Your task to perform on an android device: toggle priority inbox in the gmail app Image 0: 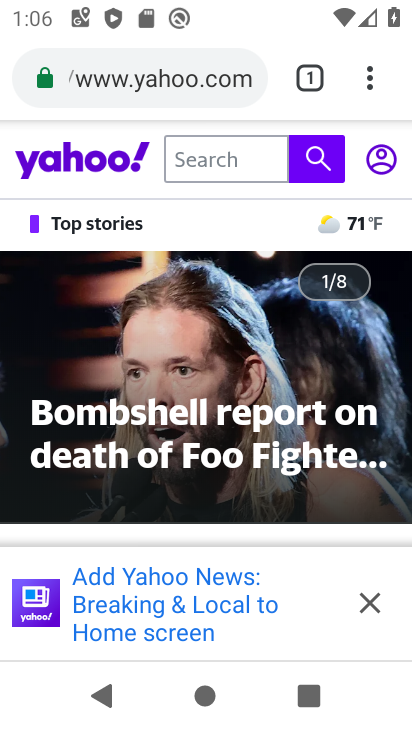
Step 0: press home button
Your task to perform on an android device: toggle priority inbox in the gmail app Image 1: 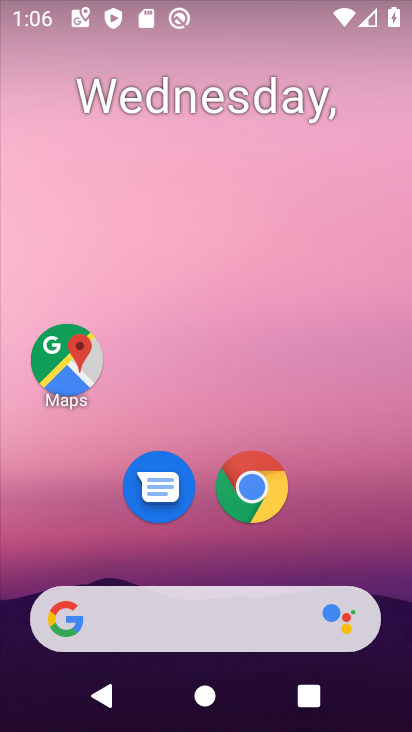
Step 1: drag from (230, 539) to (300, 27)
Your task to perform on an android device: toggle priority inbox in the gmail app Image 2: 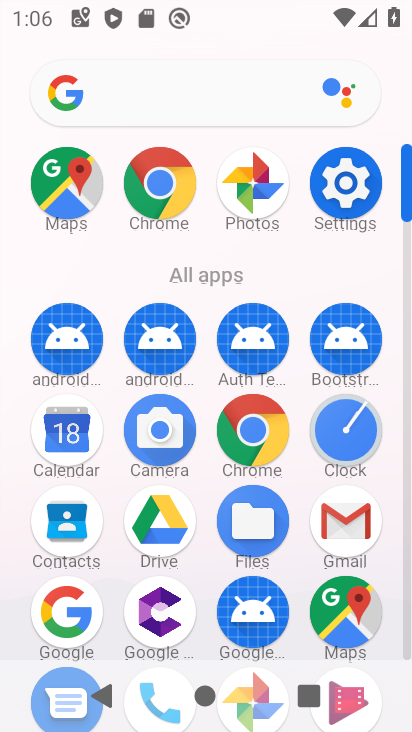
Step 2: click (345, 517)
Your task to perform on an android device: toggle priority inbox in the gmail app Image 3: 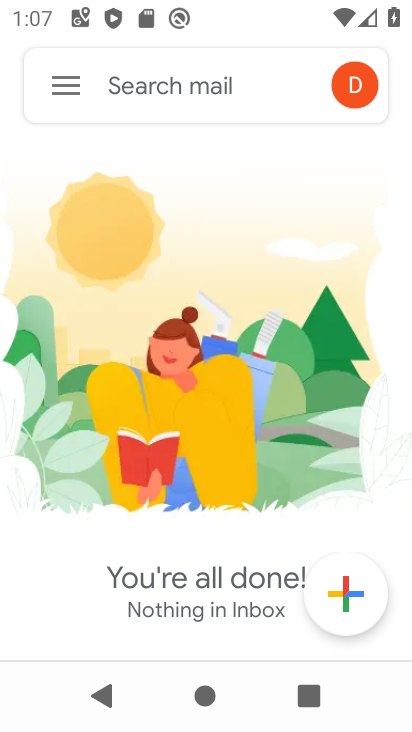
Step 3: click (61, 76)
Your task to perform on an android device: toggle priority inbox in the gmail app Image 4: 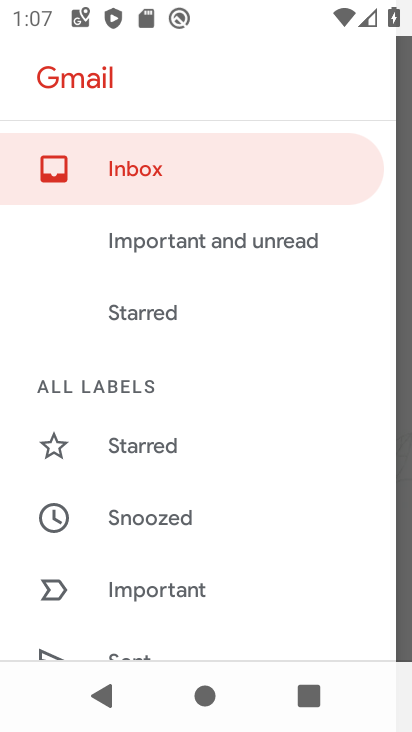
Step 4: drag from (146, 524) to (201, 125)
Your task to perform on an android device: toggle priority inbox in the gmail app Image 5: 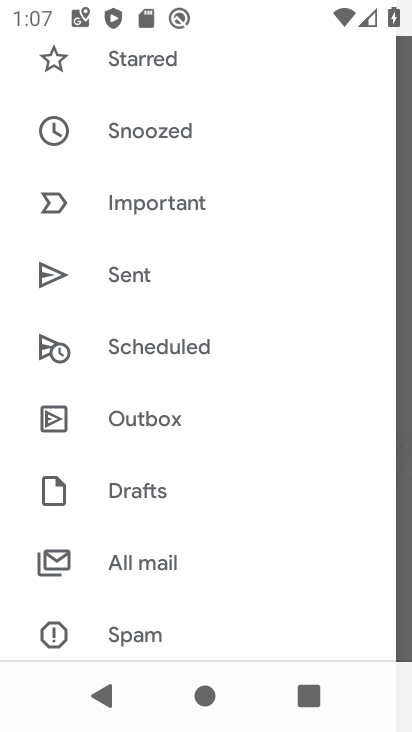
Step 5: drag from (174, 554) to (223, 180)
Your task to perform on an android device: toggle priority inbox in the gmail app Image 6: 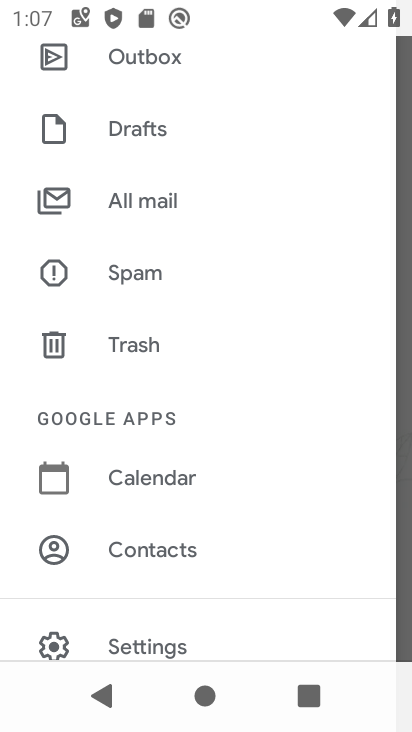
Step 6: drag from (187, 604) to (223, 433)
Your task to perform on an android device: toggle priority inbox in the gmail app Image 7: 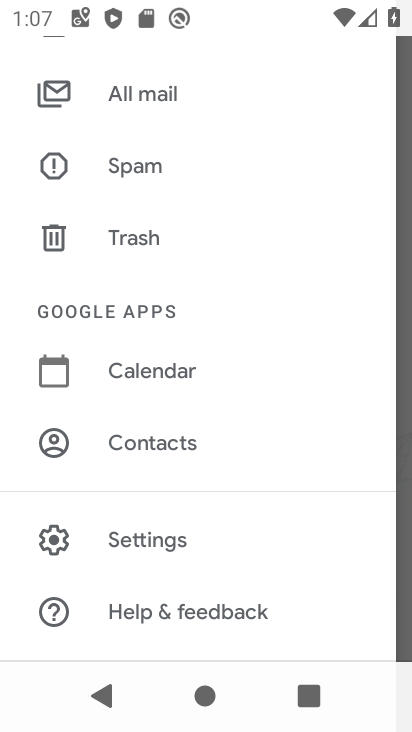
Step 7: click (158, 540)
Your task to perform on an android device: toggle priority inbox in the gmail app Image 8: 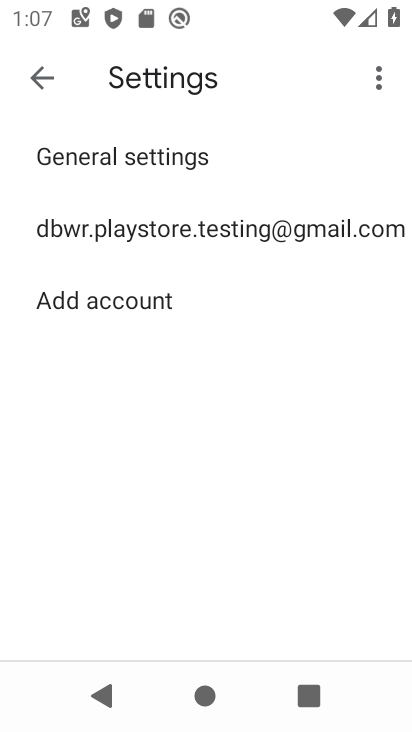
Step 8: click (217, 231)
Your task to perform on an android device: toggle priority inbox in the gmail app Image 9: 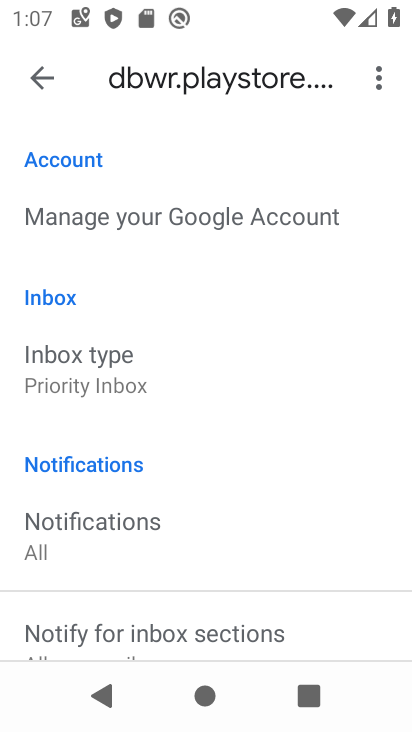
Step 9: click (116, 387)
Your task to perform on an android device: toggle priority inbox in the gmail app Image 10: 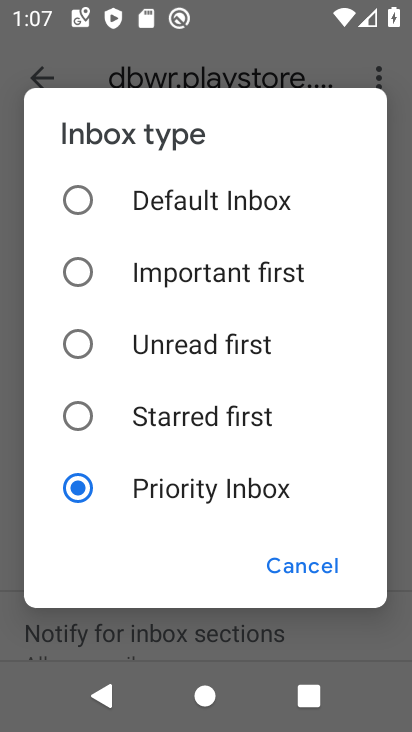
Step 10: click (174, 192)
Your task to perform on an android device: toggle priority inbox in the gmail app Image 11: 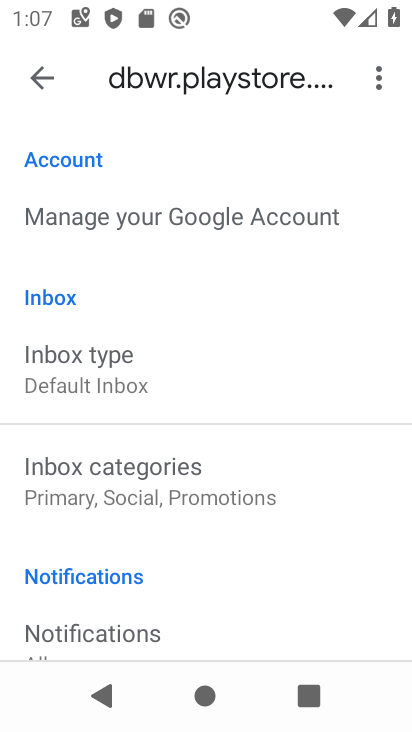
Step 11: task complete